Your task to perform on an android device: turn on data saver in the chrome app Image 0: 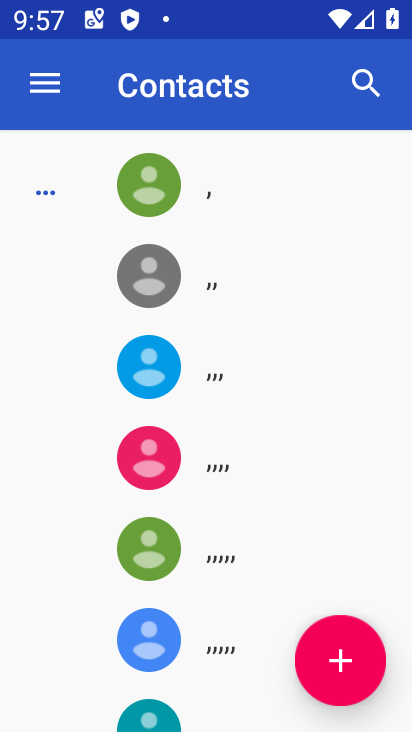
Step 0: press back button
Your task to perform on an android device: turn on data saver in the chrome app Image 1: 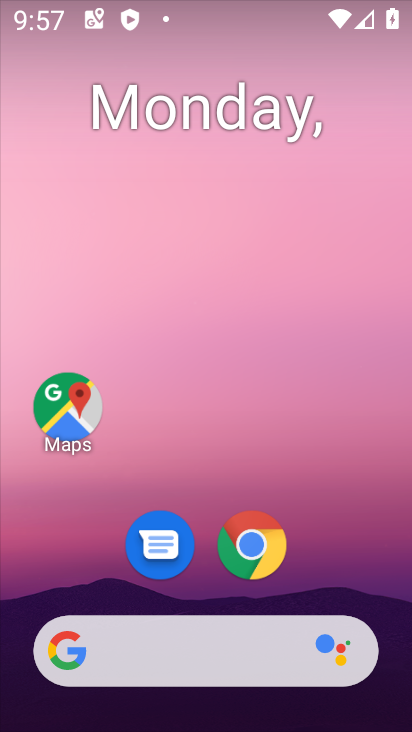
Step 1: click (251, 545)
Your task to perform on an android device: turn on data saver in the chrome app Image 2: 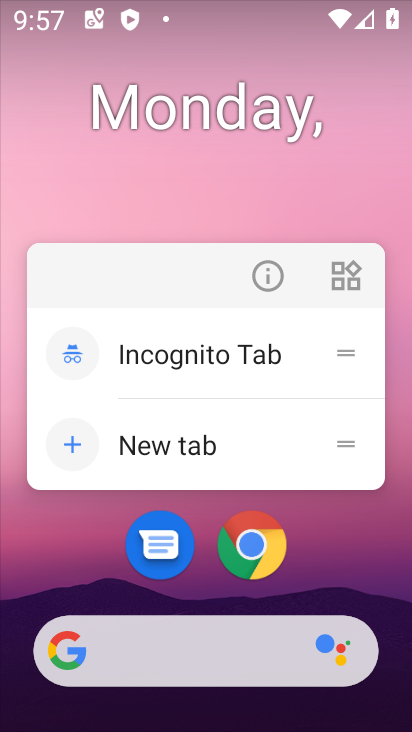
Step 2: click (251, 545)
Your task to perform on an android device: turn on data saver in the chrome app Image 3: 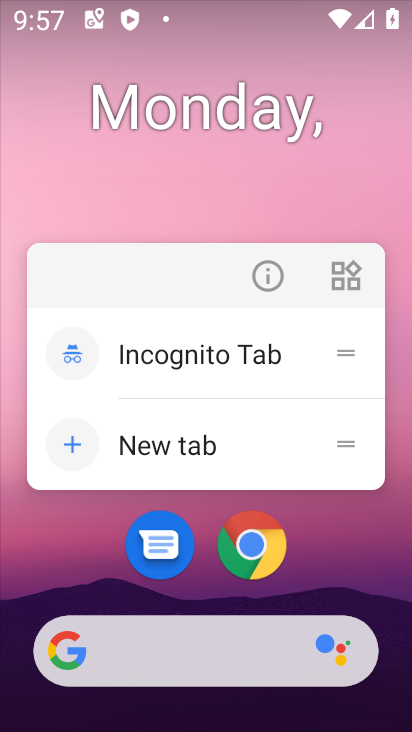
Step 3: click (251, 545)
Your task to perform on an android device: turn on data saver in the chrome app Image 4: 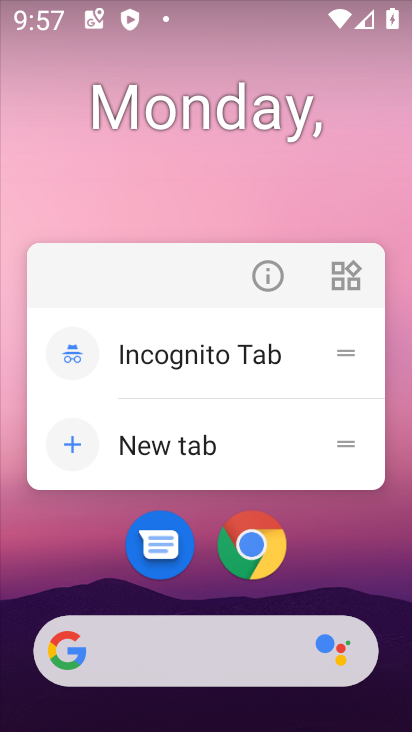
Step 4: click (255, 529)
Your task to perform on an android device: turn on data saver in the chrome app Image 5: 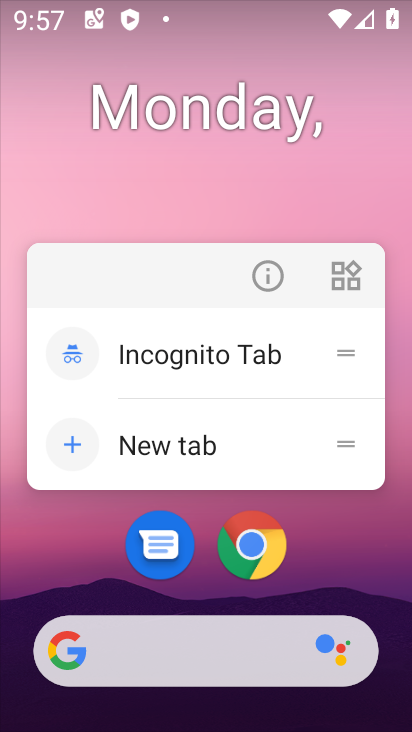
Step 5: click (243, 544)
Your task to perform on an android device: turn on data saver in the chrome app Image 6: 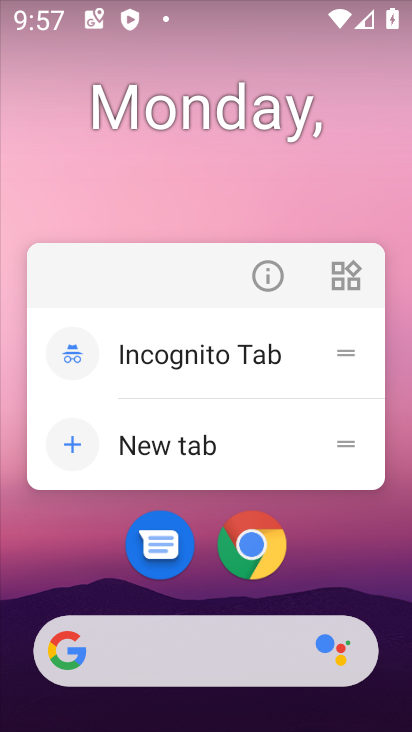
Step 6: click (161, 147)
Your task to perform on an android device: turn on data saver in the chrome app Image 7: 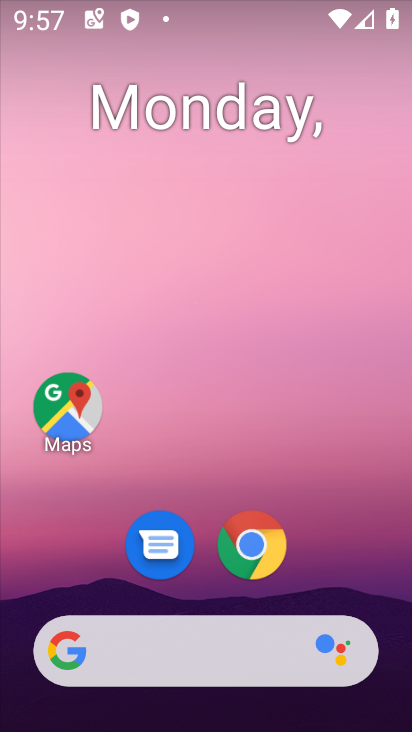
Step 7: click (241, 536)
Your task to perform on an android device: turn on data saver in the chrome app Image 8: 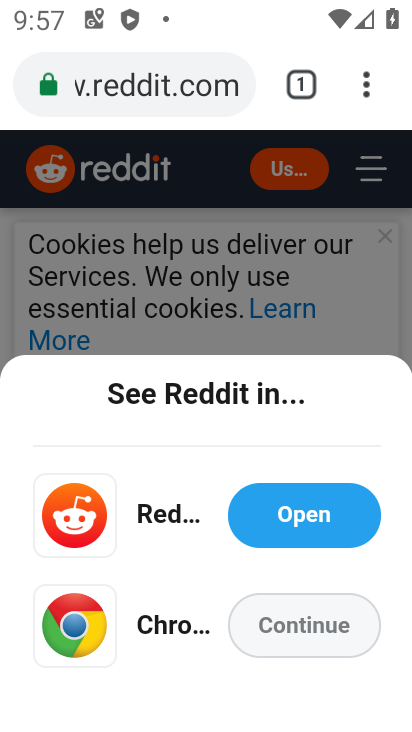
Step 8: click (366, 87)
Your task to perform on an android device: turn on data saver in the chrome app Image 9: 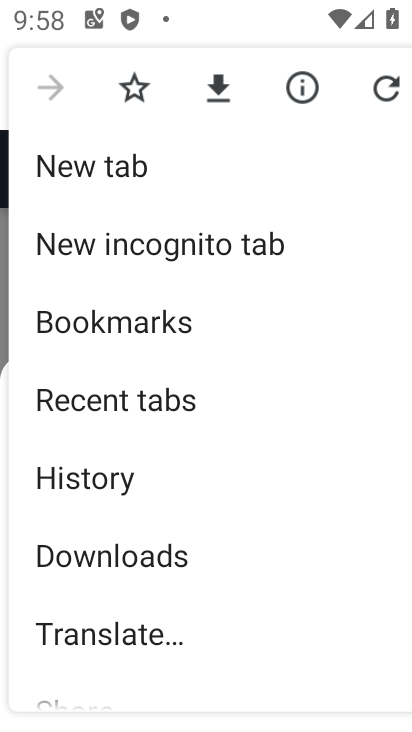
Step 9: drag from (137, 631) to (243, 198)
Your task to perform on an android device: turn on data saver in the chrome app Image 10: 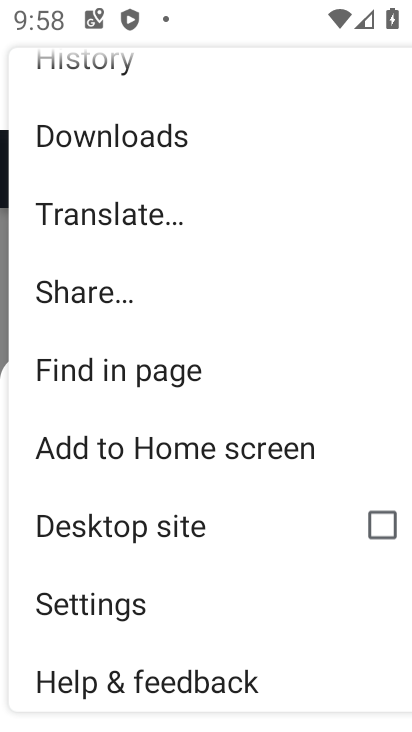
Step 10: click (76, 598)
Your task to perform on an android device: turn on data saver in the chrome app Image 11: 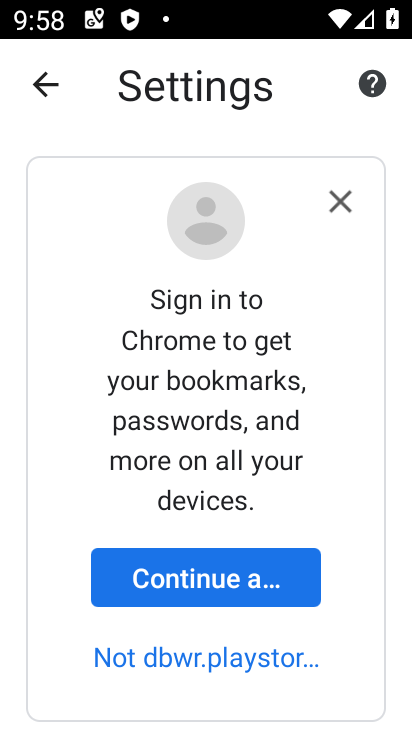
Step 11: click (345, 200)
Your task to perform on an android device: turn on data saver in the chrome app Image 12: 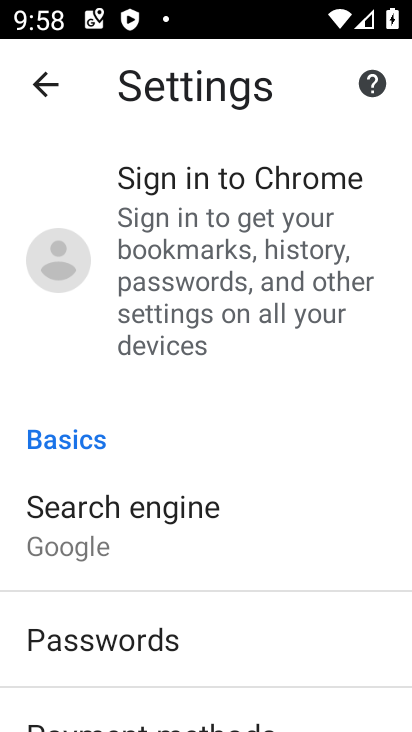
Step 12: drag from (17, 575) to (256, 164)
Your task to perform on an android device: turn on data saver in the chrome app Image 13: 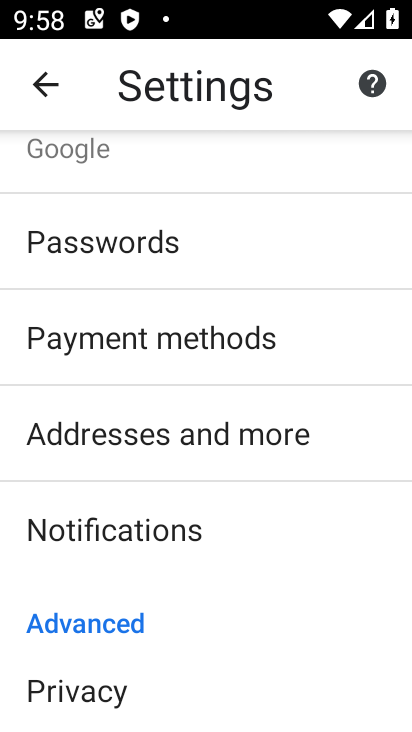
Step 13: drag from (27, 505) to (252, 209)
Your task to perform on an android device: turn on data saver in the chrome app Image 14: 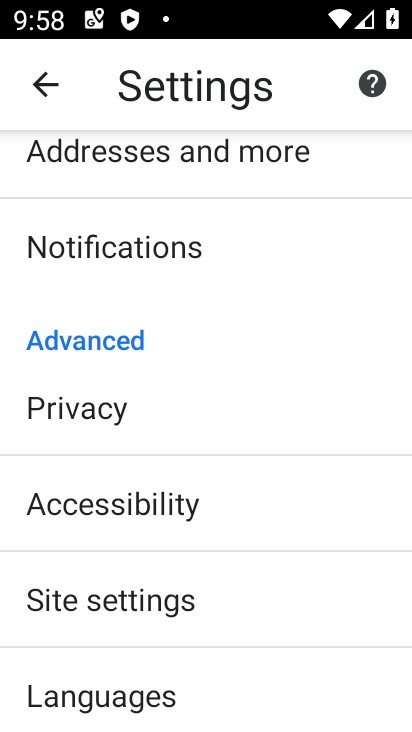
Step 14: drag from (24, 625) to (240, 179)
Your task to perform on an android device: turn on data saver in the chrome app Image 15: 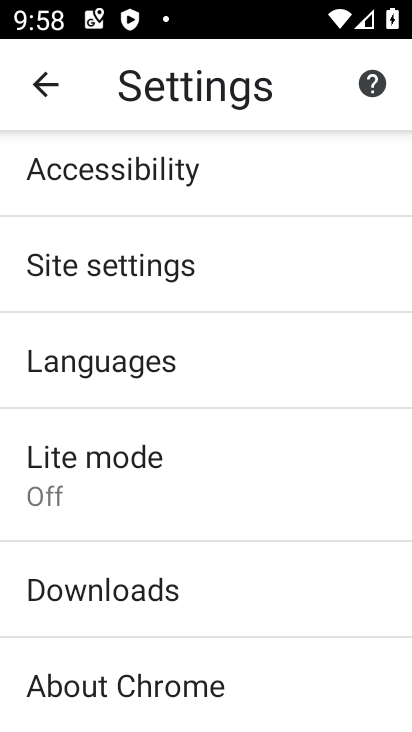
Step 15: click (185, 483)
Your task to perform on an android device: turn on data saver in the chrome app Image 16: 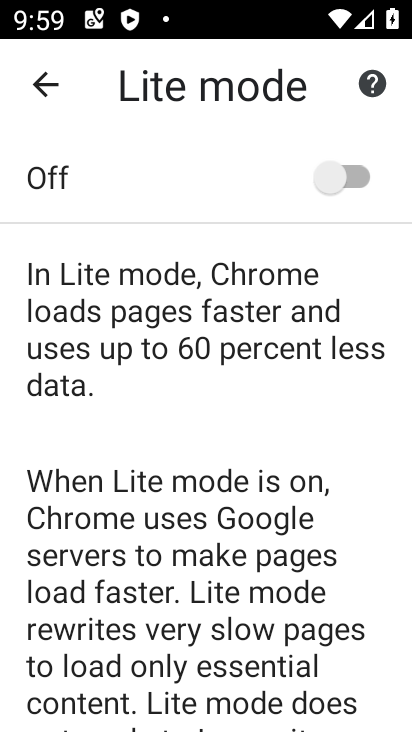
Step 16: task complete